Your task to perform on an android device: open chrome privacy settings Image 0: 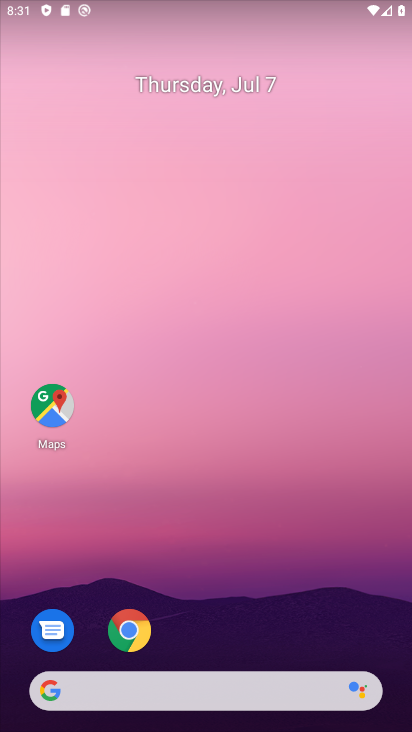
Step 0: click (133, 621)
Your task to perform on an android device: open chrome privacy settings Image 1: 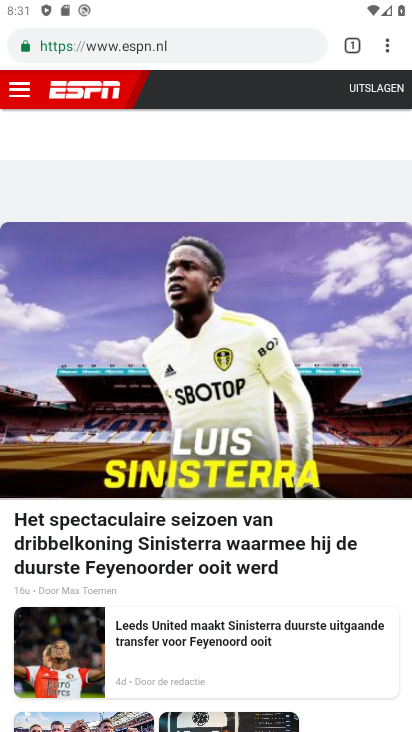
Step 1: click (384, 49)
Your task to perform on an android device: open chrome privacy settings Image 2: 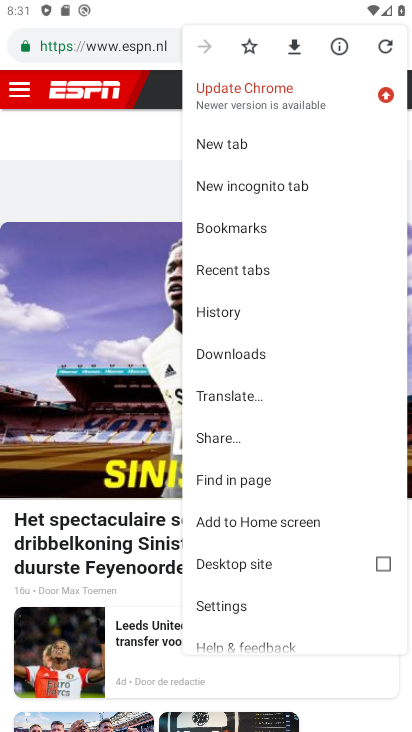
Step 2: click (218, 605)
Your task to perform on an android device: open chrome privacy settings Image 3: 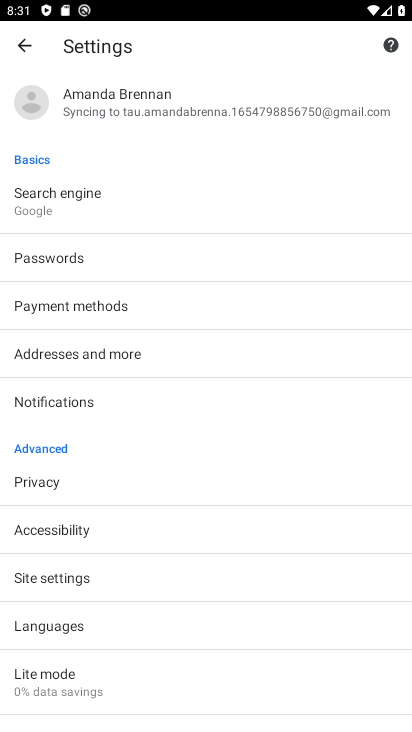
Step 3: click (80, 482)
Your task to perform on an android device: open chrome privacy settings Image 4: 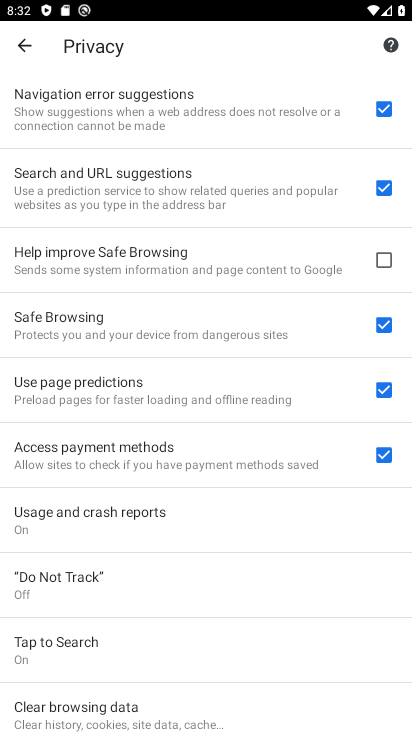
Step 4: task complete